Your task to perform on an android device: turn off airplane mode Image 0: 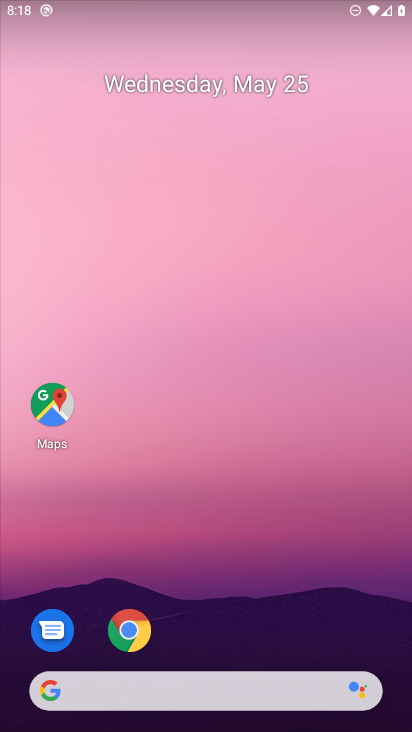
Step 0: drag from (186, 679) to (288, 406)
Your task to perform on an android device: turn off airplane mode Image 1: 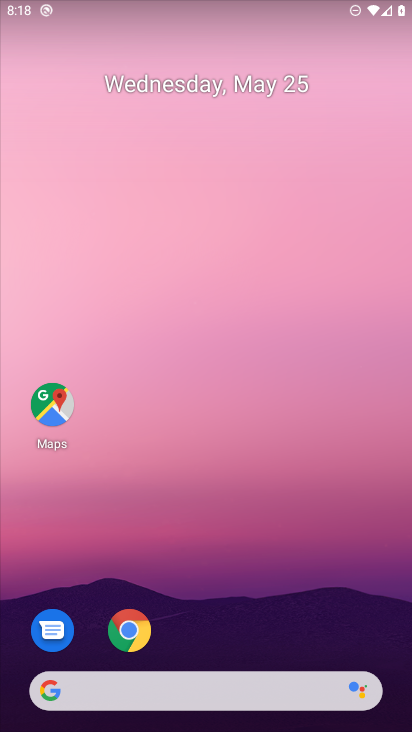
Step 1: drag from (203, 610) to (335, 286)
Your task to perform on an android device: turn off airplane mode Image 2: 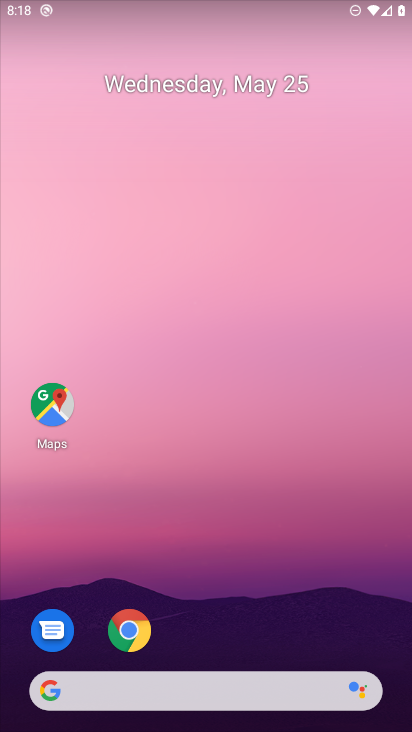
Step 2: drag from (210, 682) to (407, 164)
Your task to perform on an android device: turn off airplane mode Image 3: 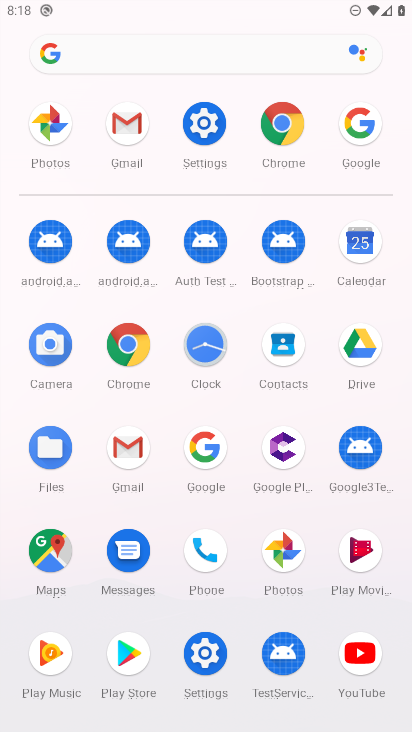
Step 3: click (205, 132)
Your task to perform on an android device: turn off airplane mode Image 4: 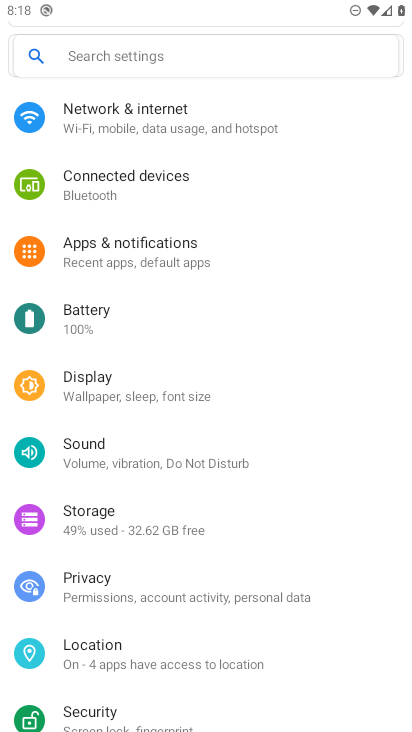
Step 4: click (205, 132)
Your task to perform on an android device: turn off airplane mode Image 5: 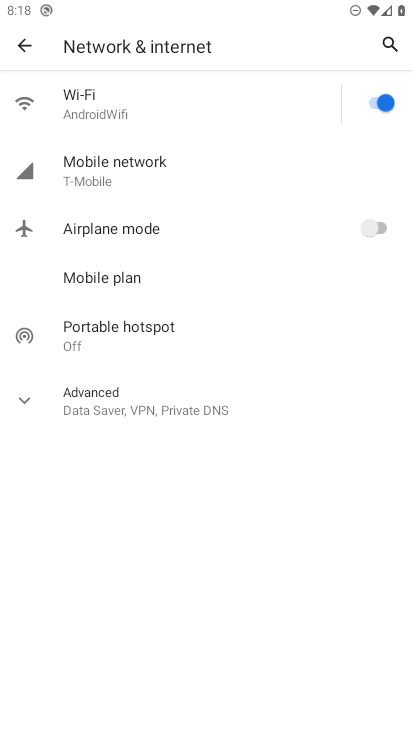
Step 5: task complete